Your task to perform on an android device: move a message to another label in the gmail app Image 0: 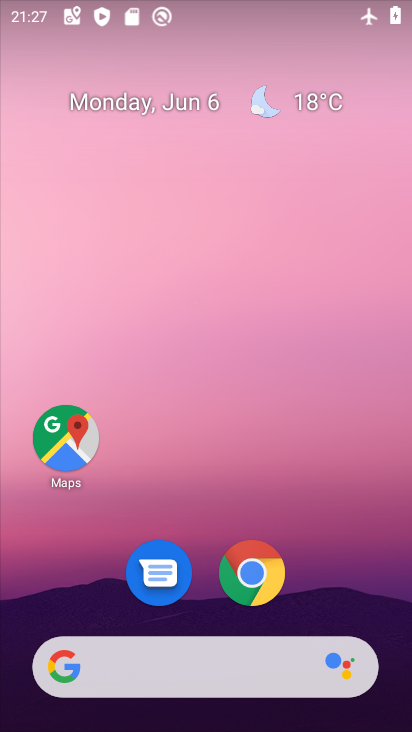
Step 0: drag from (341, 614) to (255, 258)
Your task to perform on an android device: move a message to another label in the gmail app Image 1: 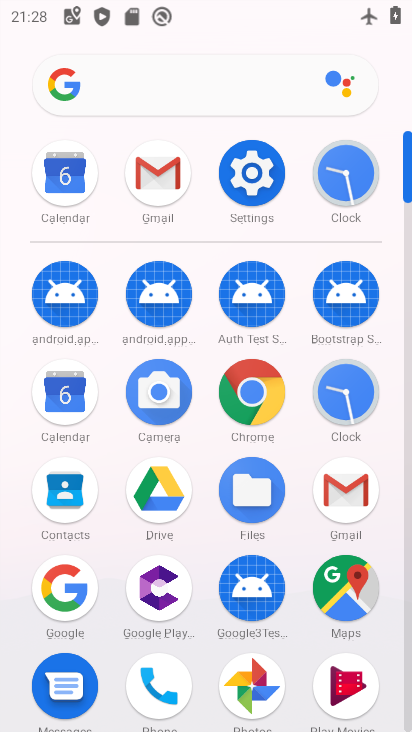
Step 1: click (358, 484)
Your task to perform on an android device: move a message to another label in the gmail app Image 2: 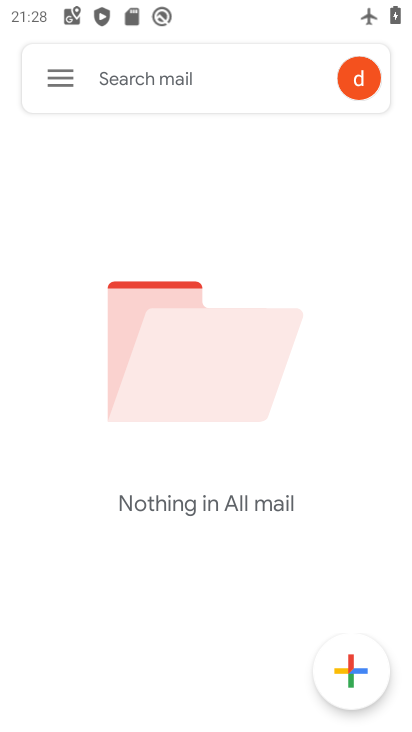
Step 2: task complete